Your task to perform on an android device: Open the phone app and click the voicemail tab. Image 0: 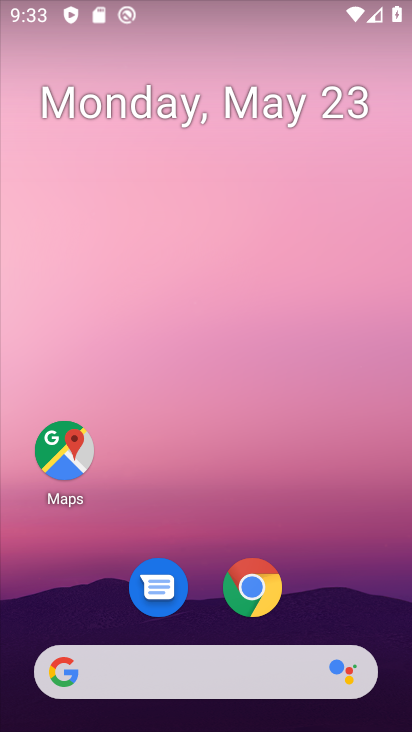
Step 0: drag from (398, 596) to (402, 1)
Your task to perform on an android device: Open the phone app and click the voicemail tab. Image 1: 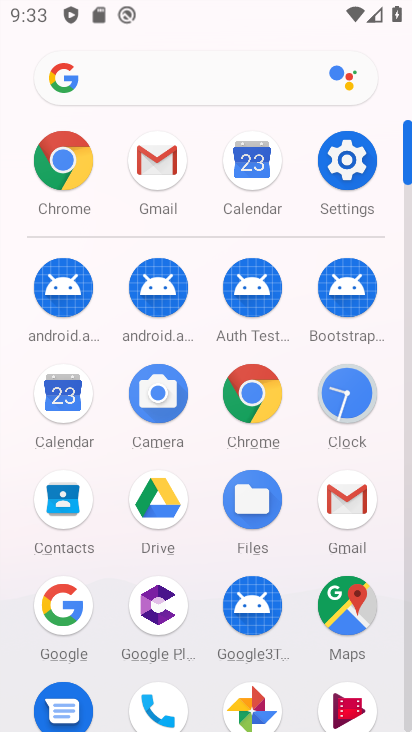
Step 1: drag from (398, 486) to (376, 156)
Your task to perform on an android device: Open the phone app and click the voicemail tab. Image 2: 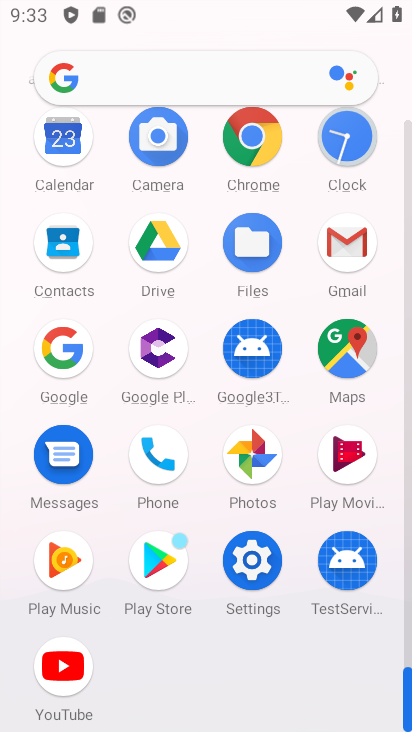
Step 2: click (138, 428)
Your task to perform on an android device: Open the phone app and click the voicemail tab. Image 3: 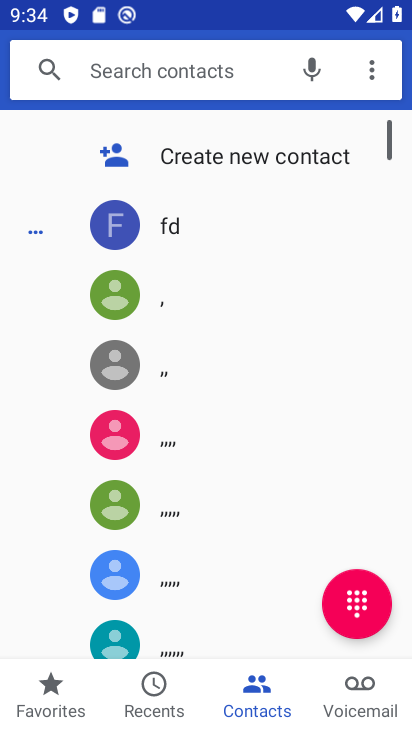
Step 3: click (361, 691)
Your task to perform on an android device: Open the phone app and click the voicemail tab. Image 4: 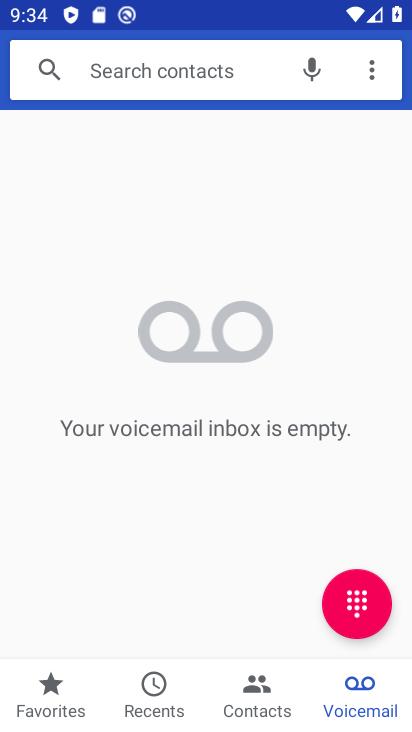
Step 4: task complete